Your task to perform on an android device: stop showing notifications on the lock screen Image 0: 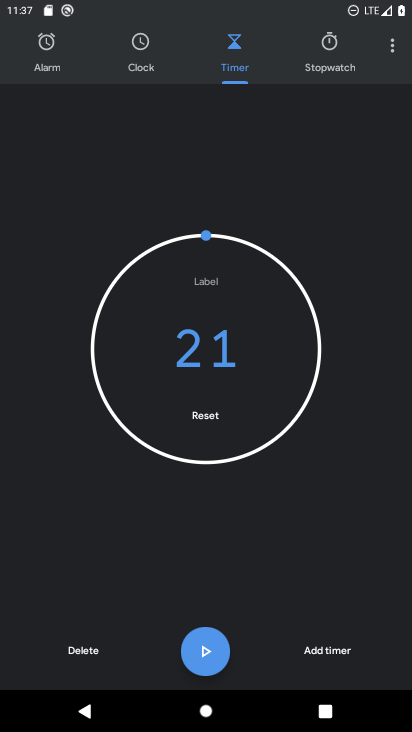
Step 0: press home button
Your task to perform on an android device: stop showing notifications on the lock screen Image 1: 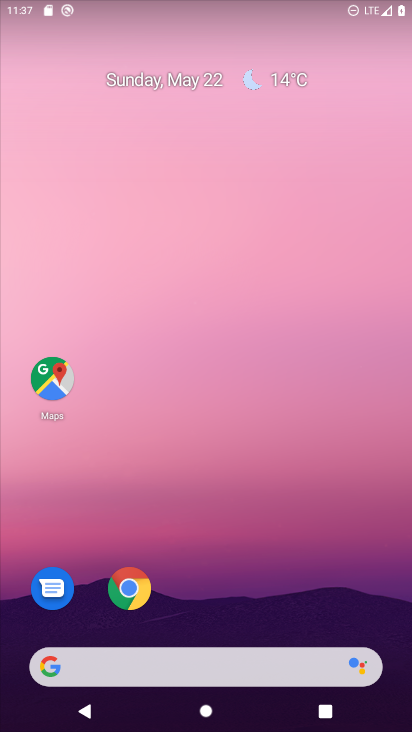
Step 1: drag from (233, 616) to (237, 276)
Your task to perform on an android device: stop showing notifications on the lock screen Image 2: 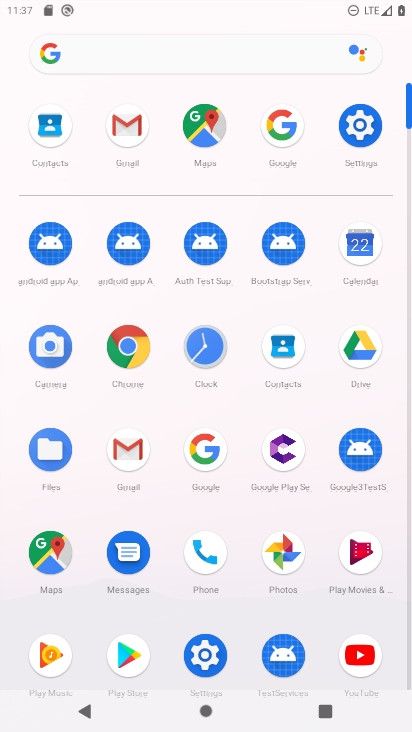
Step 2: click (349, 127)
Your task to perform on an android device: stop showing notifications on the lock screen Image 3: 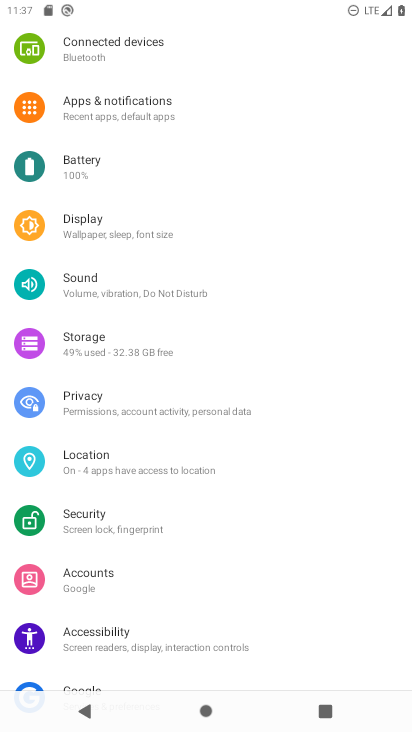
Step 3: click (138, 116)
Your task to perform on an android device: stop showing notifications on the lock screen Image 4: 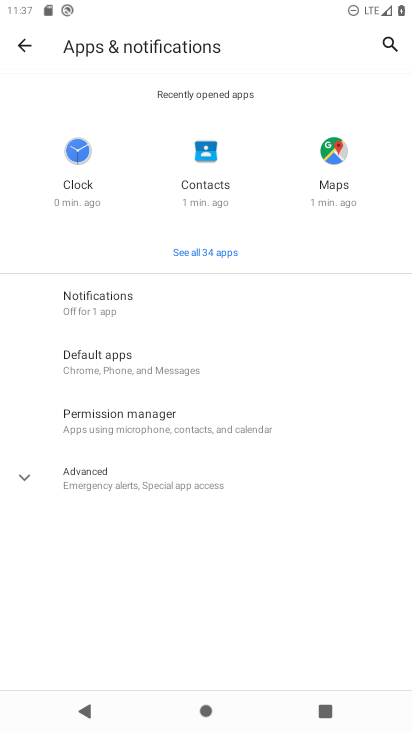
Step 4: click (162, 296)
Your task to perform on an android device: stop showing notifications on the lock screen Image 5: 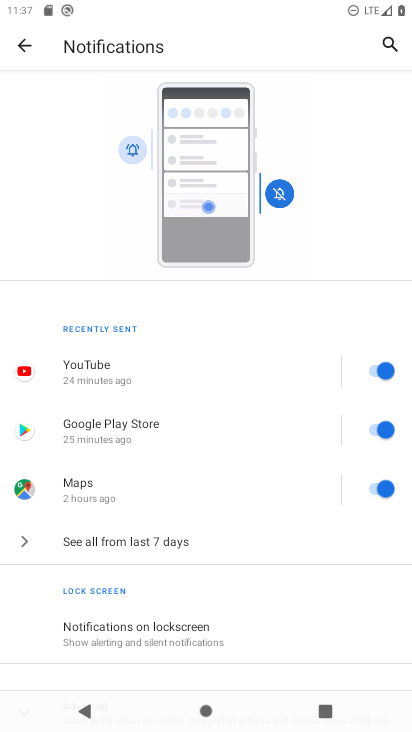
Step 5: drag from (240, 627) to (252, 381)
Your task to perform on an android device: stop showing notifications on the lock screen Image 6: 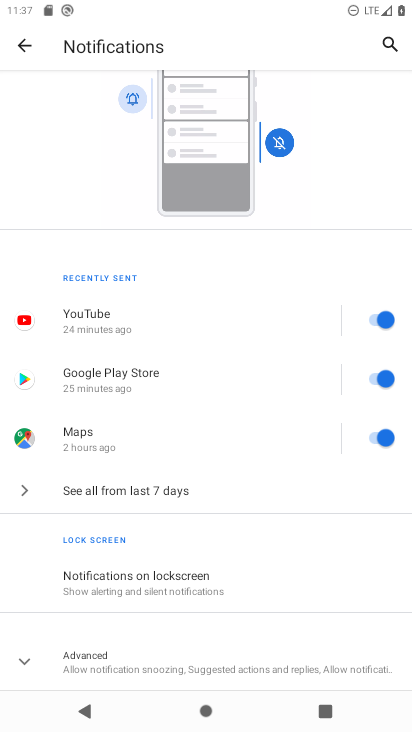
Step 6: click (225, 587)
Your task to perform on an android device: stop showing notifications on the lock screen Image 7: 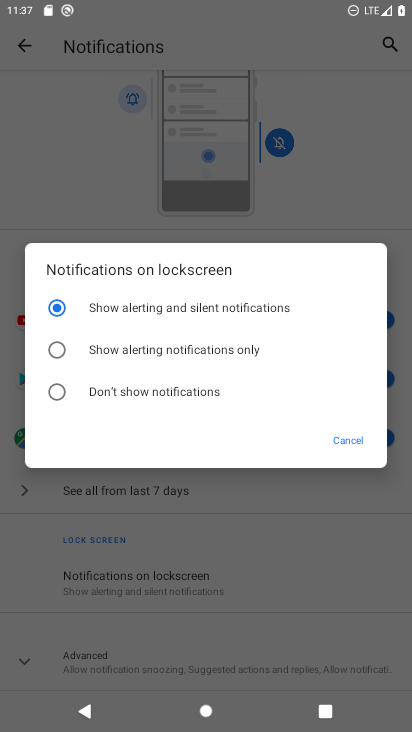
Step 7: click (178, 380)
Your task to perform on an android device: stop showing notifications on the lock screen Image 8: 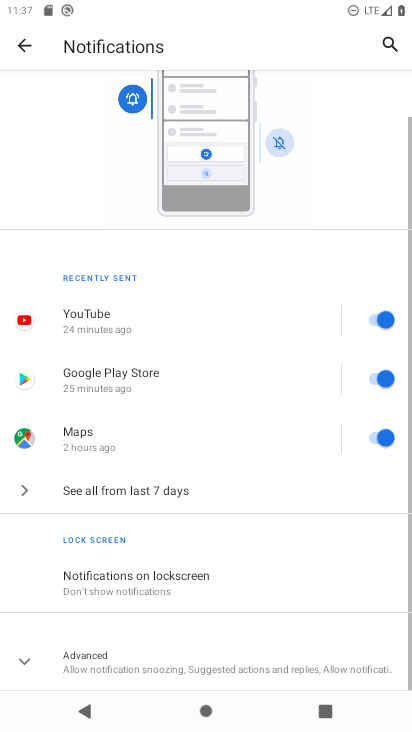
Step 8: task complete